Your task to perform on an android device: Open maps Image 0: 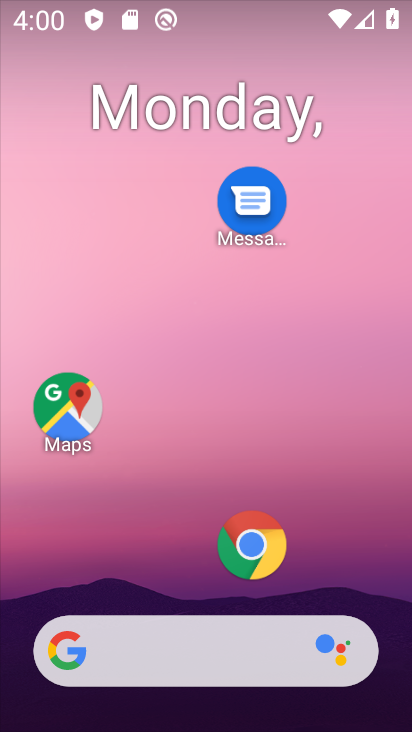
Step 0: drag from (187, 571) to (192, 105)
Your task to perform on an android device: Open maps Image 1: 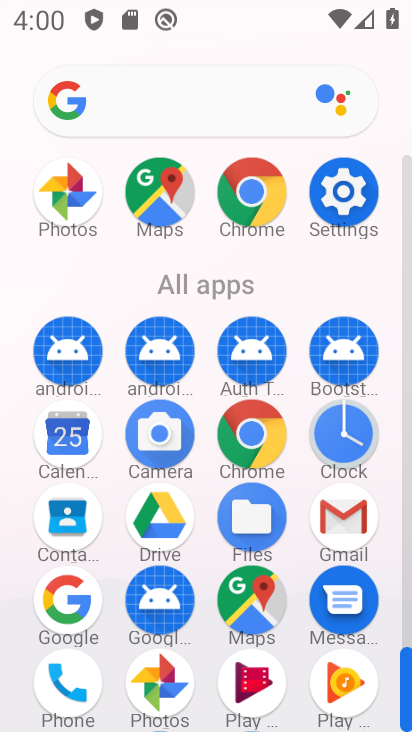
Step 1: click (252, 595)
Your task to perform on an android device: Open maps Image 2: 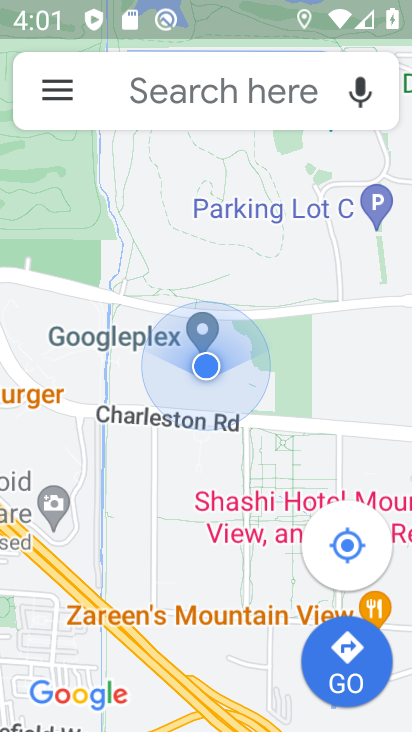
Step 2: task complete